Your task to perform on an android device: toggle show notifications on the lock screen Image 0: 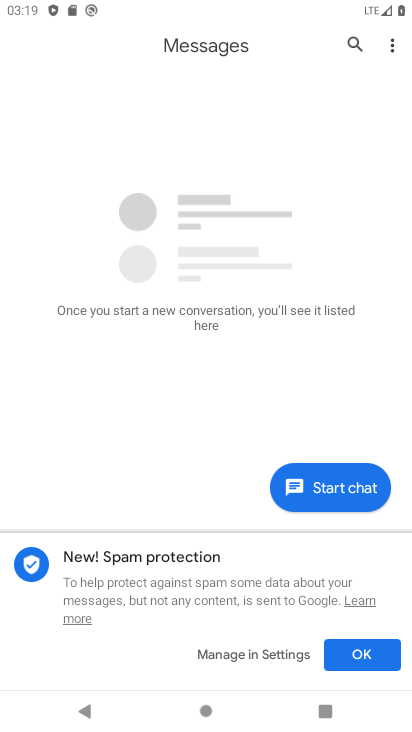
Step 0: press home button
Your task to perform on an android device: toggle show notifications on the lock screen Image 1: 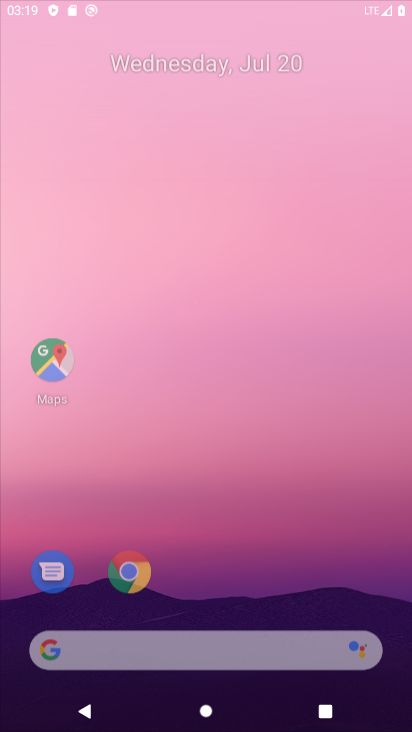
Step 1: drag from (210, 624) to (353, 224)
Your task to perform on an android device: toggle show notifications on the lock screen Image 2: 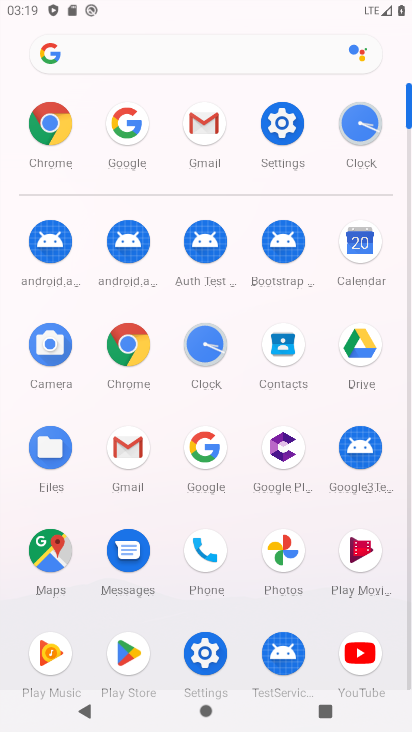
Step 2: click (292, 110)
Your task to perform on an android device: toggle show notifications on the lock screen Image 3: 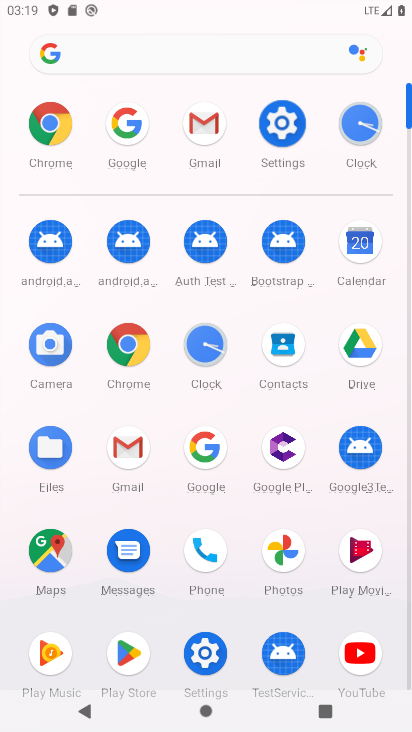
Step 3: click (292, 110)
Your task to perform on an android device: toggle show notifications on the lock screen Image 4: 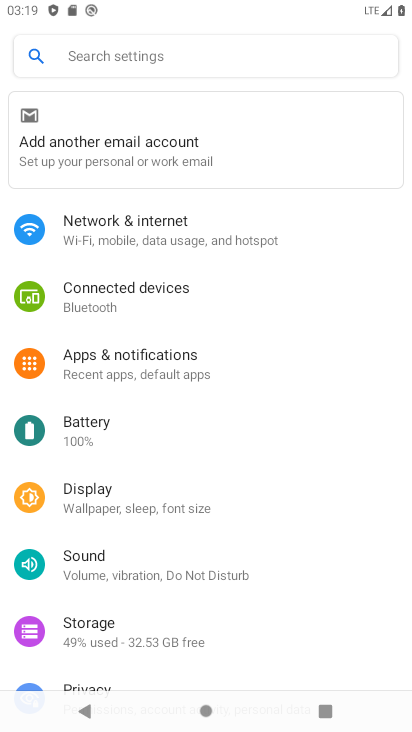
Step 4: click (118, 360)
Your task to perform on an android device: toggle show notifications on the lock screen Image 5: 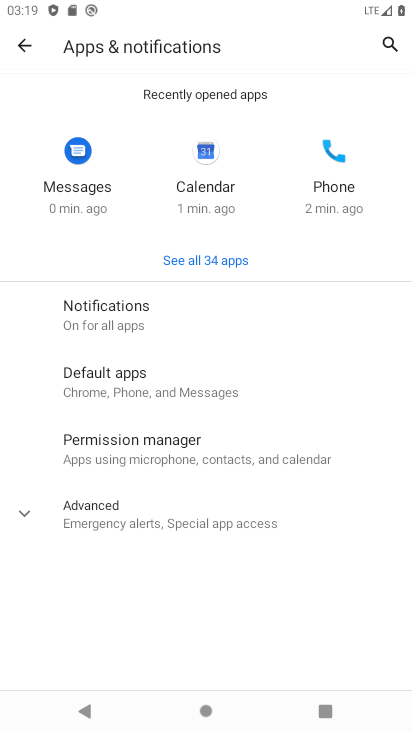
Step 5: click (140, 312)
Your task to perform on an android device: toggle show notifications on the lock screen Image 6: 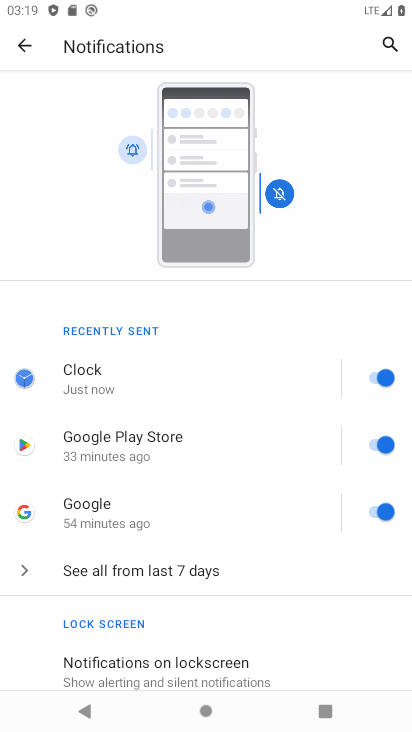
Step 6: click (162, 655)
Your task to perform on an android device: toggle show notifications on the lock screen Image 7: 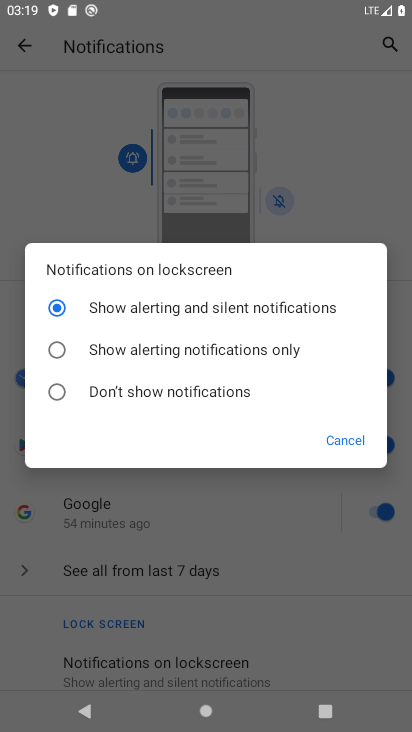
Step 7: click (87, 349)
Your task to perform on an android device: toggle show notifications on the lock screen Image 8: 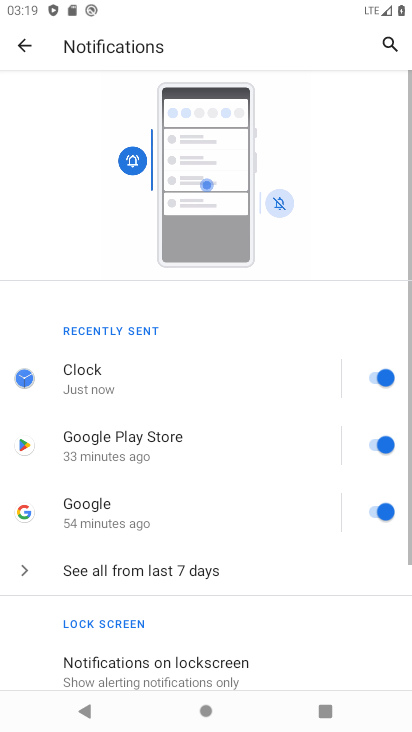
Step 8: task complete